Your task to perform on an android device: When is my next appointment? Image 0: 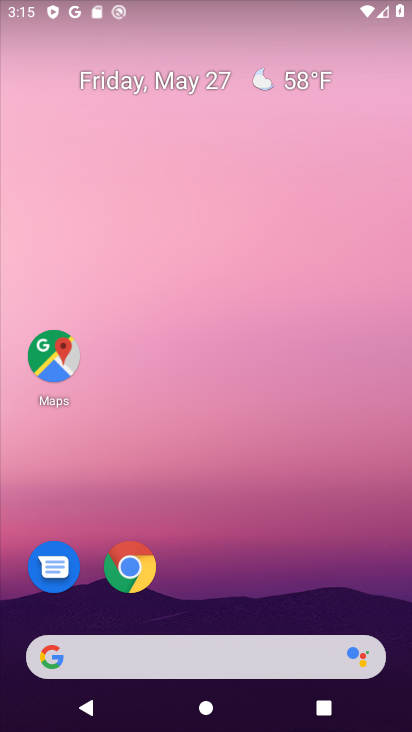
Step 0: press home button
Your task to perform on an android device: When is my next appointment? Image 1: 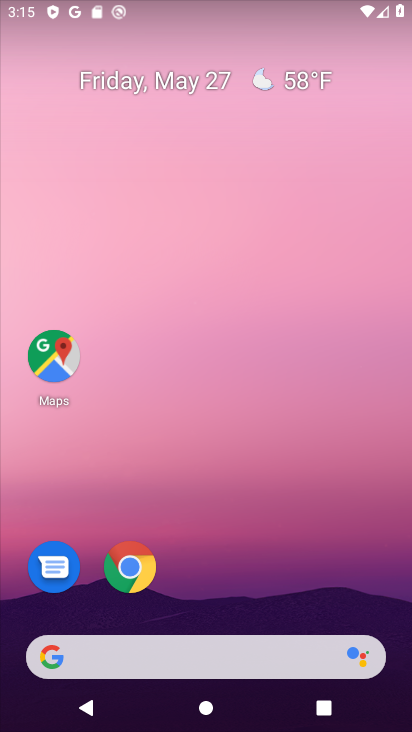
Step 1: drag from (224, 603) to (296, 82)
Your task to perform on an android device: When is my next appointment? Image 2: 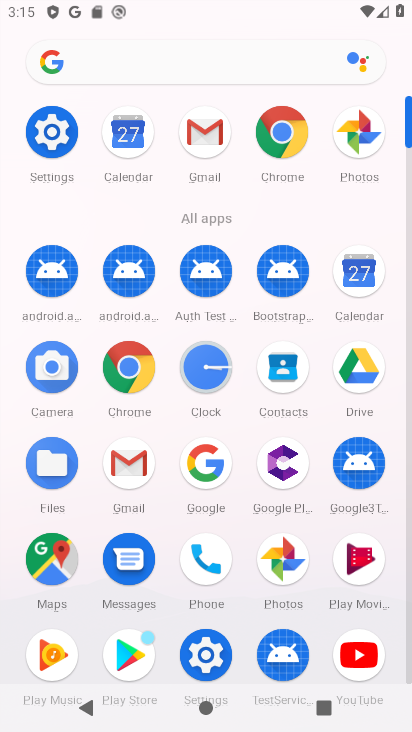
Step 2: click (360, 276)
Your task to perform on an android device: When is my next appointment? Image 3: 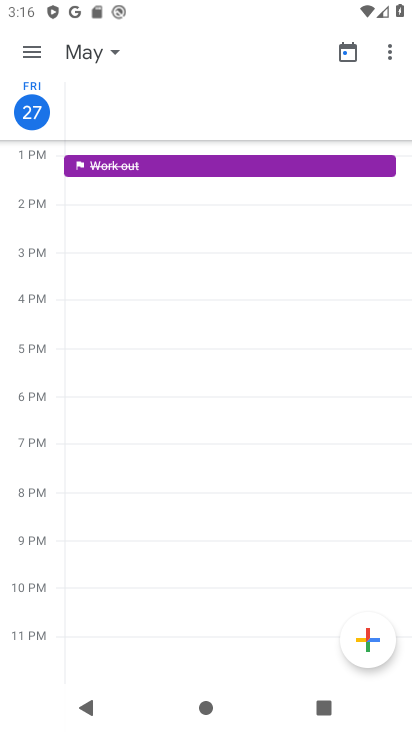
Step 3: click (47, 120)
Your task to perform on an android device: When is my next appointment? Image 4: 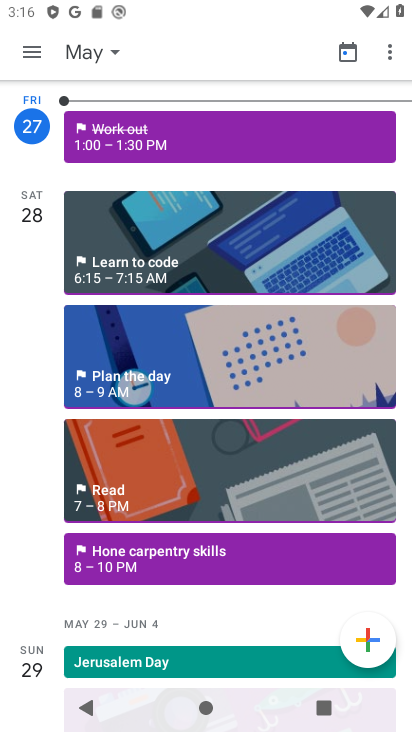
Step 4: task complete